Your task to perform on an android device: Open Google Maps and go to "Timeline" Image 0: 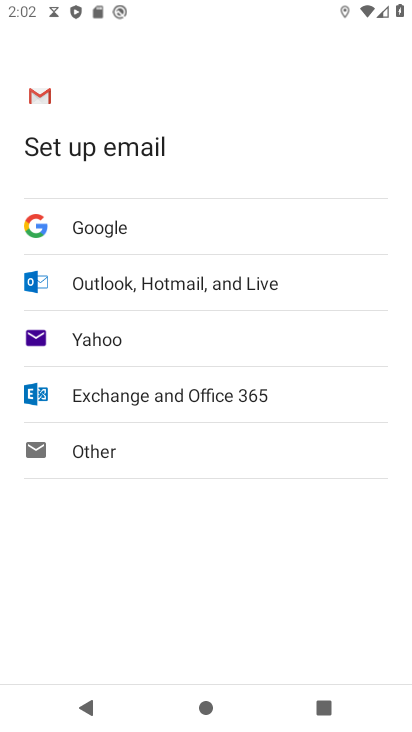
Step 0: press home button
Your task to perform on an android device: Open Google Maps and go to "Timeline" Image 1: 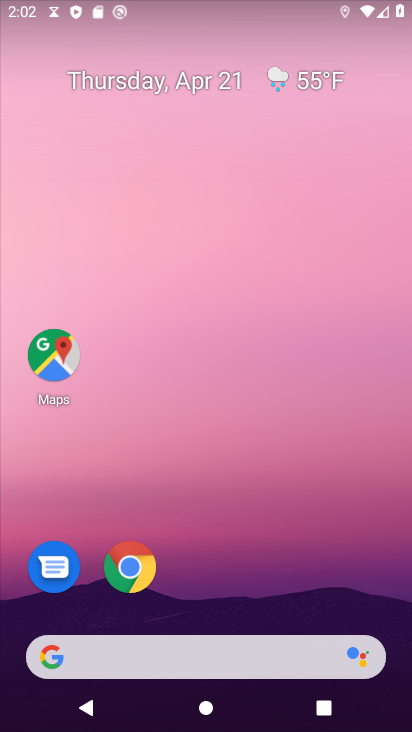
Step 1: drag from (182, 662) to (353, 128)
Your task to perform on an android device: Open Google Maps and go to "Timeline" Image 2: 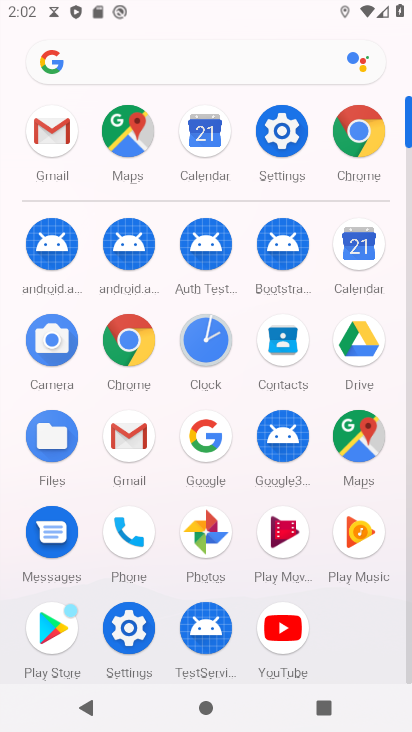
Step 2: click (356, 434)
Your task to perform on an android device: Open Google Maps and go to "Timeline" Image 3: 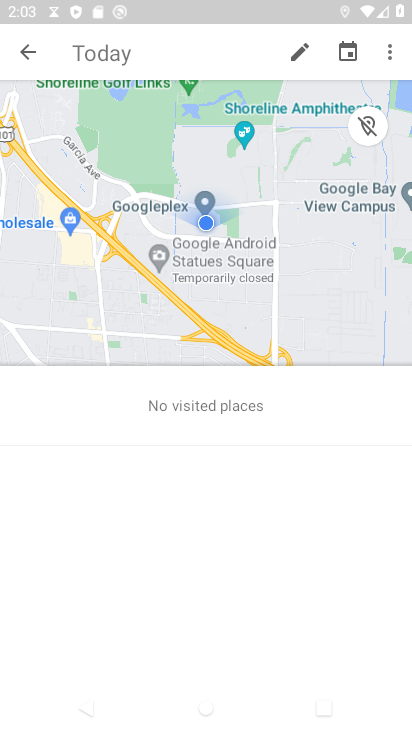
Step 3: task complete